Your task to perform on an android device: Go to Reddit.com Image 0: 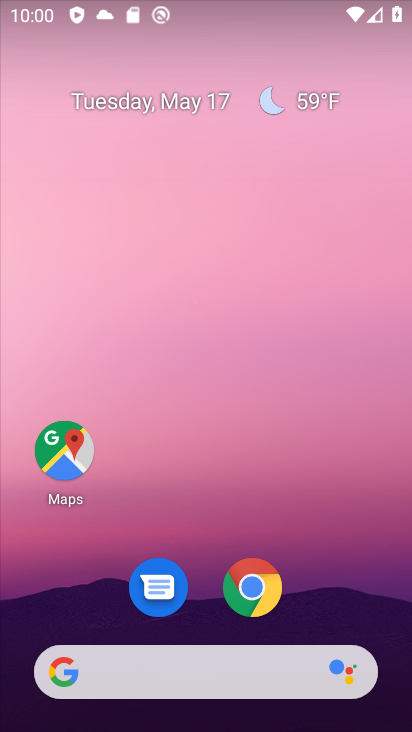
Step 0: click (248, 599)
Your task to perform on an android device: Go to Reddit.com Image 1: 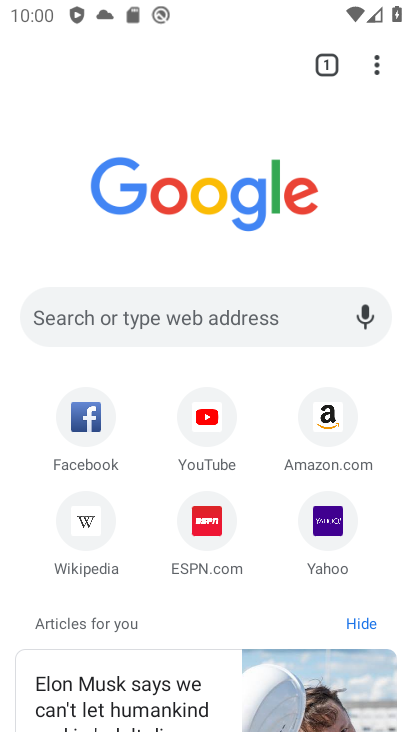
Step 1: click (207, 310)
Your task to perform on an android device: Go to Reddit.com Image 2: 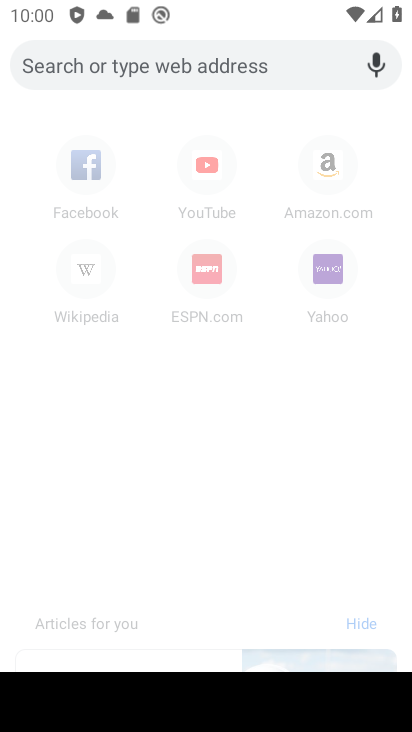
Step 2: type "Reddit.com"
Your task to perform on an android device: Go to Reddit.com Image 3: 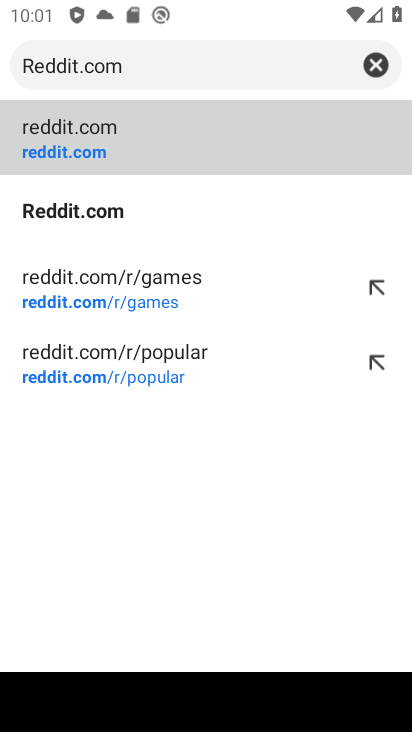
Step 3: click (146, 156)
Your task to perform on an android device: Go to Reddit.com Image 4: 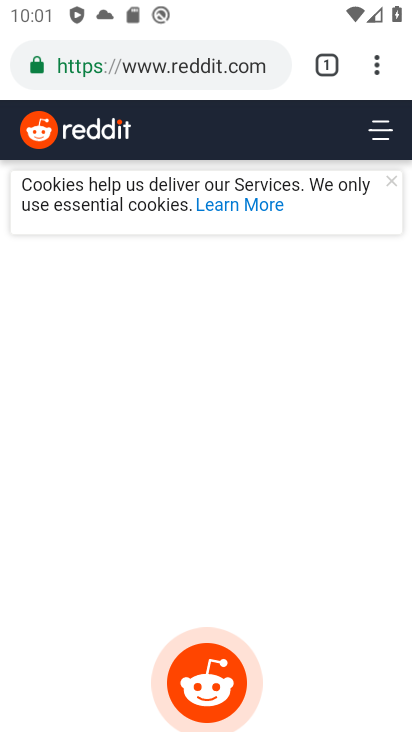
Step 4: task complete